Your task to perform on an android device: empty trash in the gmail app Image 0: 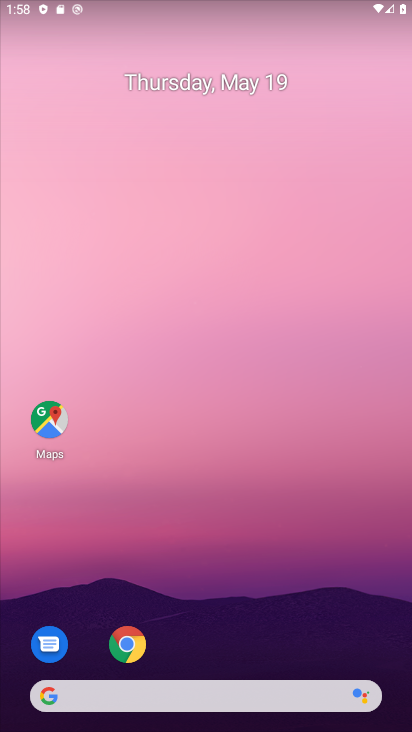
Step 0: drag from (245, 586) to (261, 121)
Your task to perform on an android device: empty trash in the gmail app Image 1: 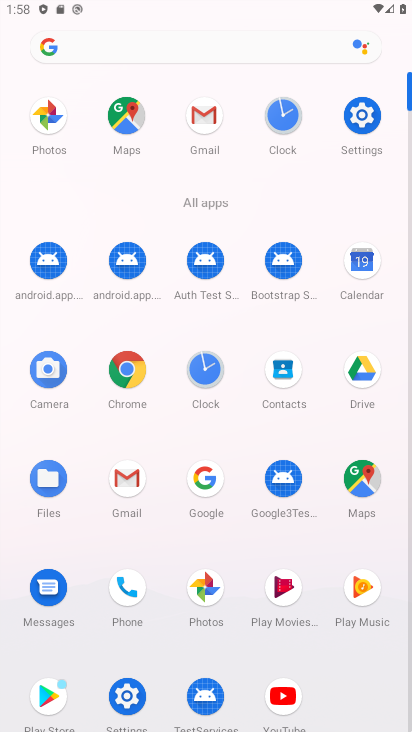
Step 1: click (204, 110)
Your task to perform on an android device: empty trash in the gmail app Image 2: 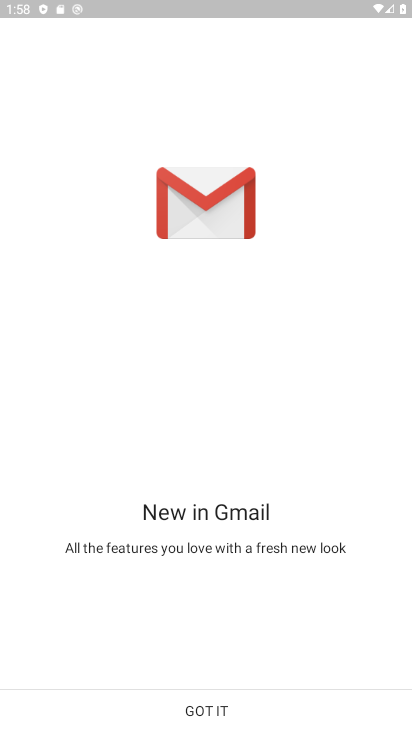
Step 2: click (203, 693)
Your task to perform on an android device: empty trash in the gmail app Image 3: 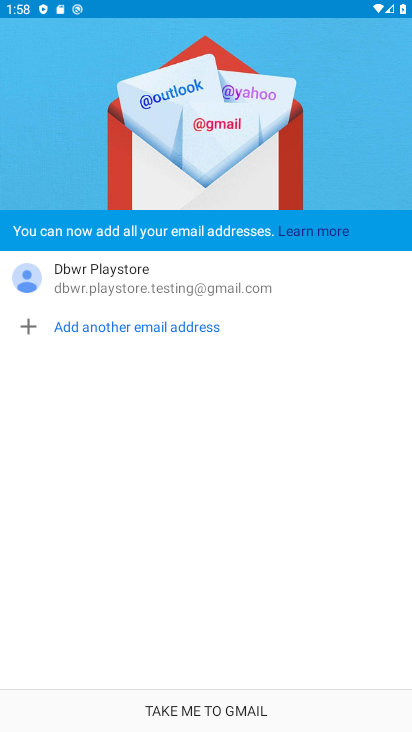
Step 3: click (215, 704)
Your task to perform on an android device: empty trash in the gmail app Image 4: 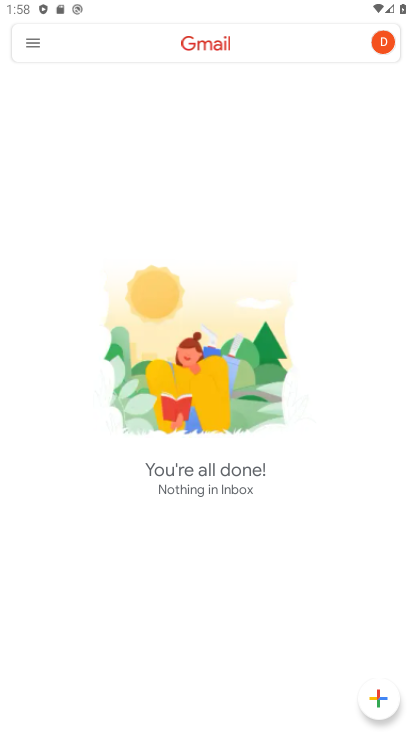
Step 4: click (30, 44)
Your task to perform on an android device: empty trash in the gmail app Image 5: 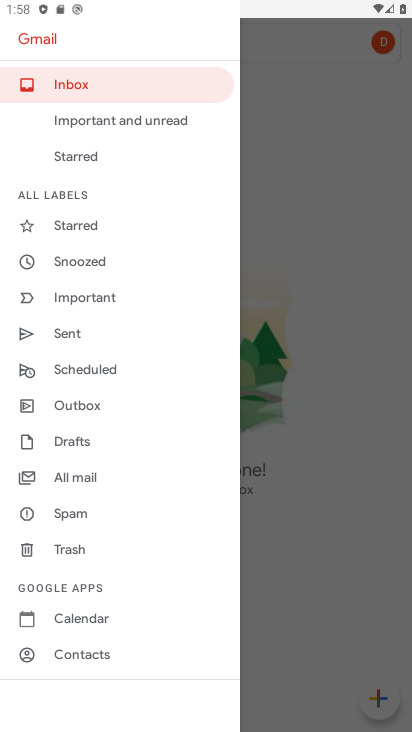
Step 5: click (78, 541)
Your task to perform on an android device: empty trash in the gmail app Image 6: 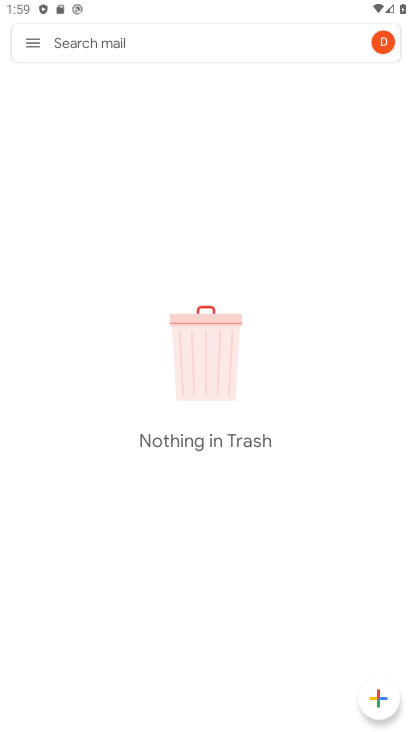
Step 6: task complete